Your task to perform on an android device: Go to Reddit.com Image 0: 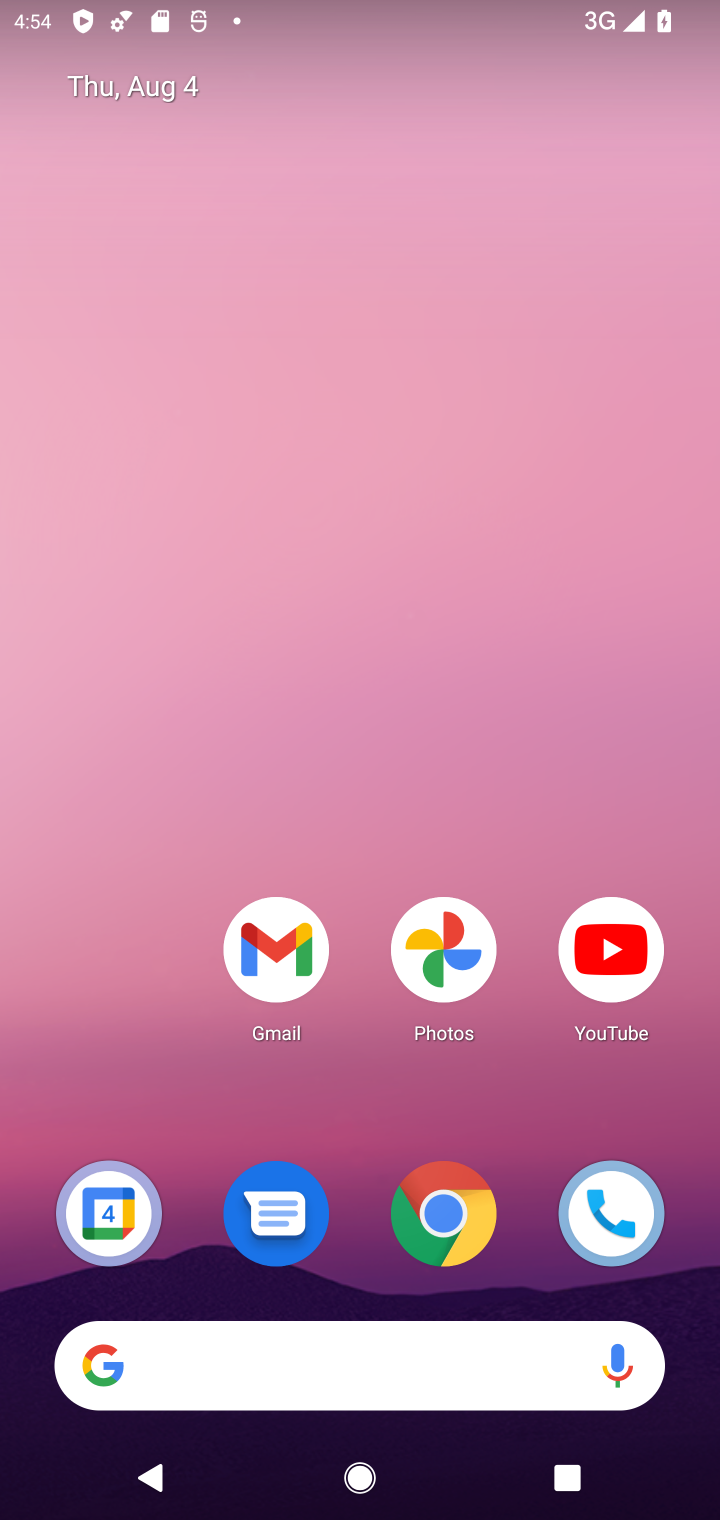
Step 0: press home button
Your task to perform on an android device: Go to Reddit.com Image 1: 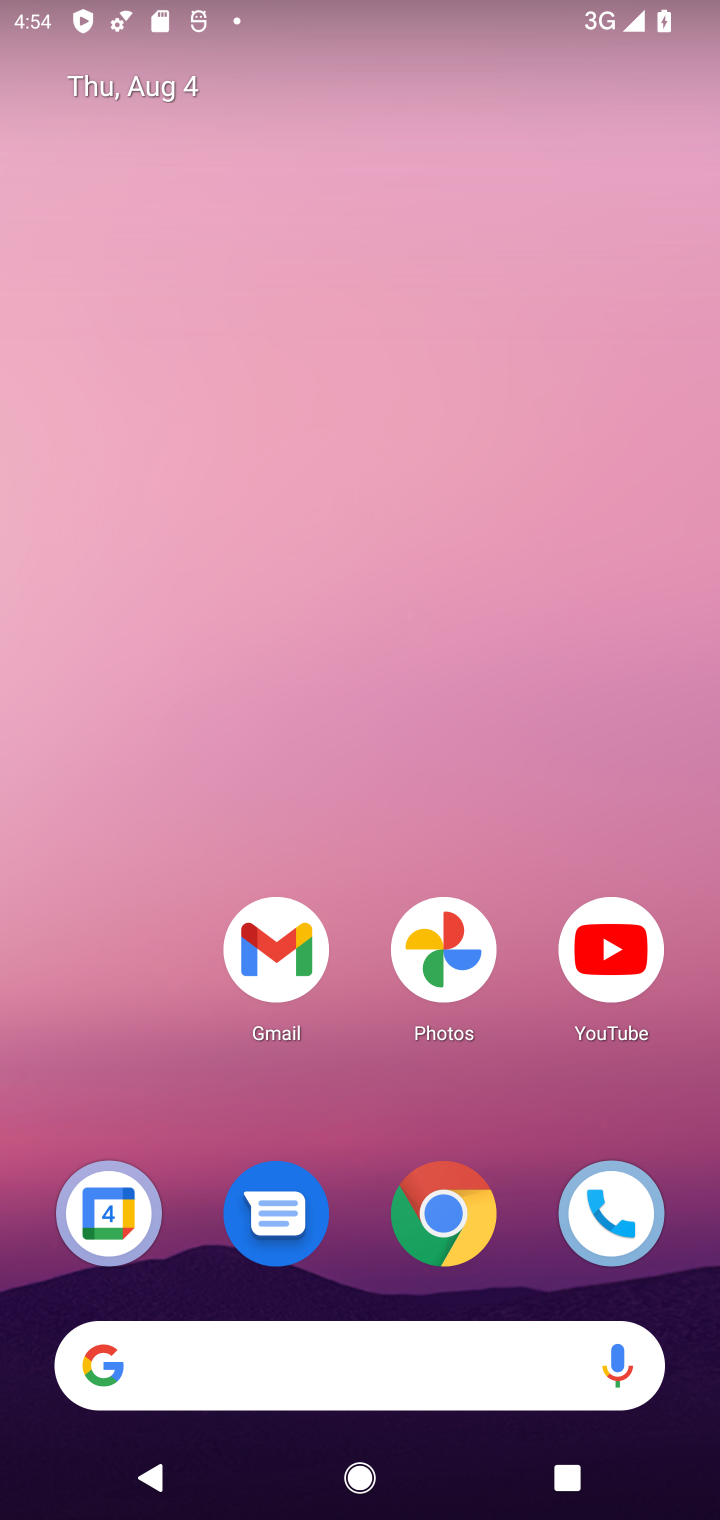
Step 1: drag from (144, 1039) to (170, 502)
Your task to perform on an android device: Go to Reddit.com Image 2: 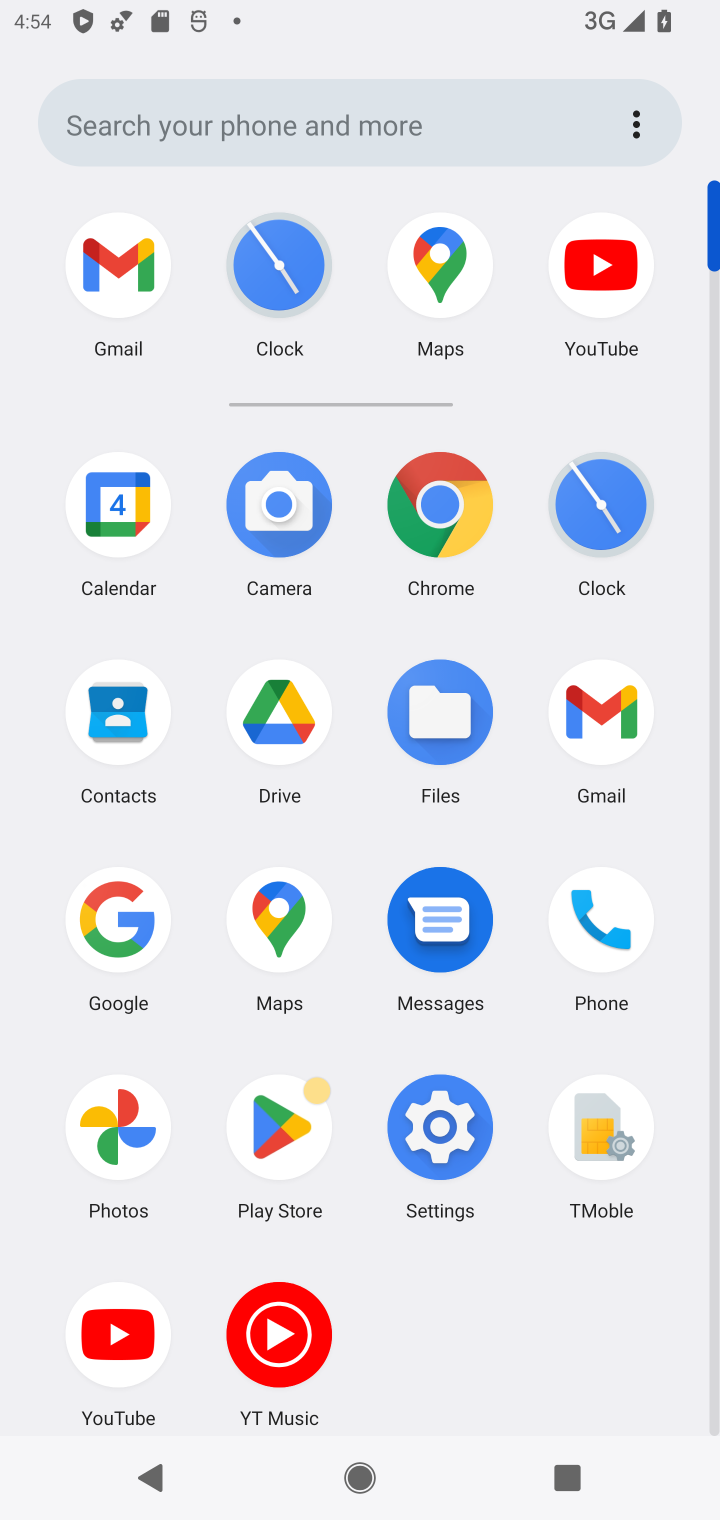
Step 2: click (451, 491)
Your task to perform on an android device: Go to Reddit.com Image 3: 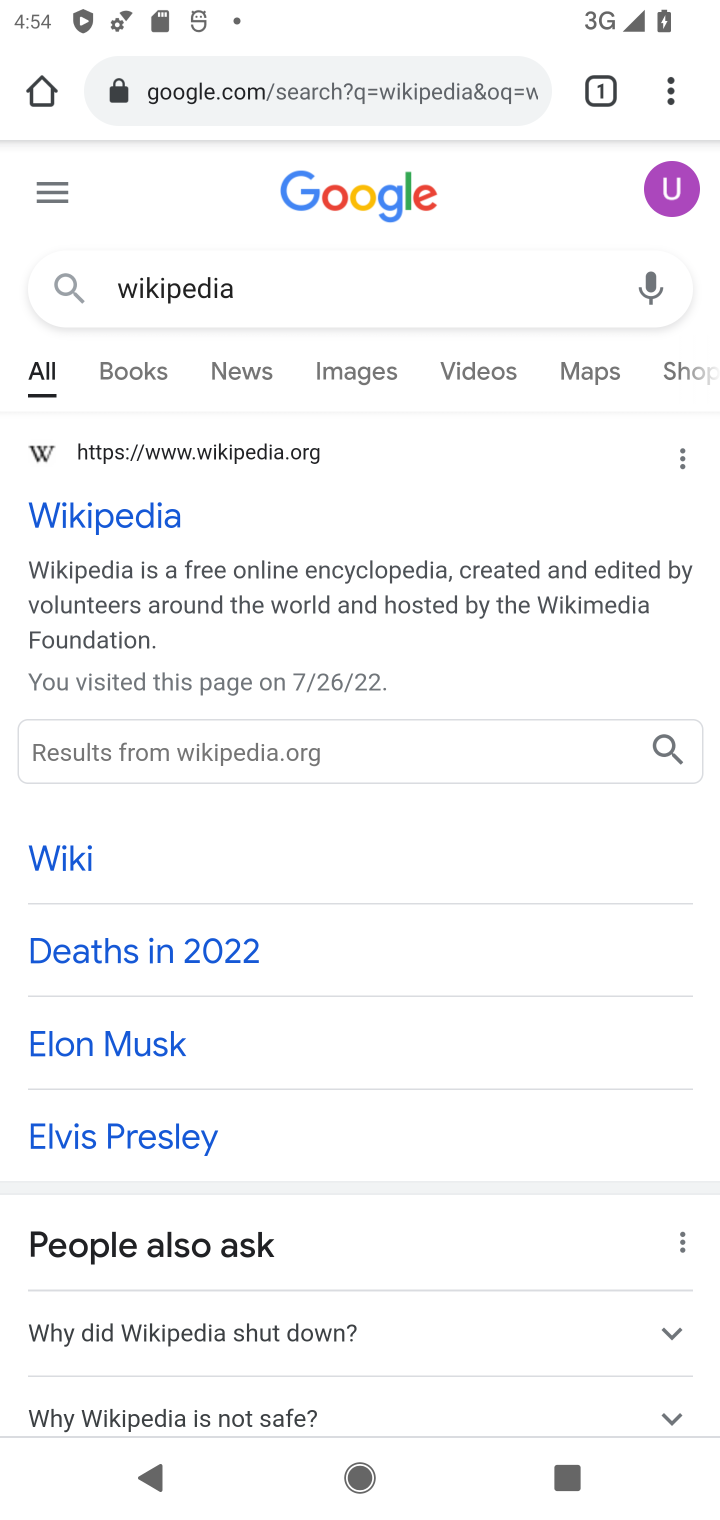
Step 3: click (401, 86)
Your task to perform on an android device: Go to Reddit.com Image 4: 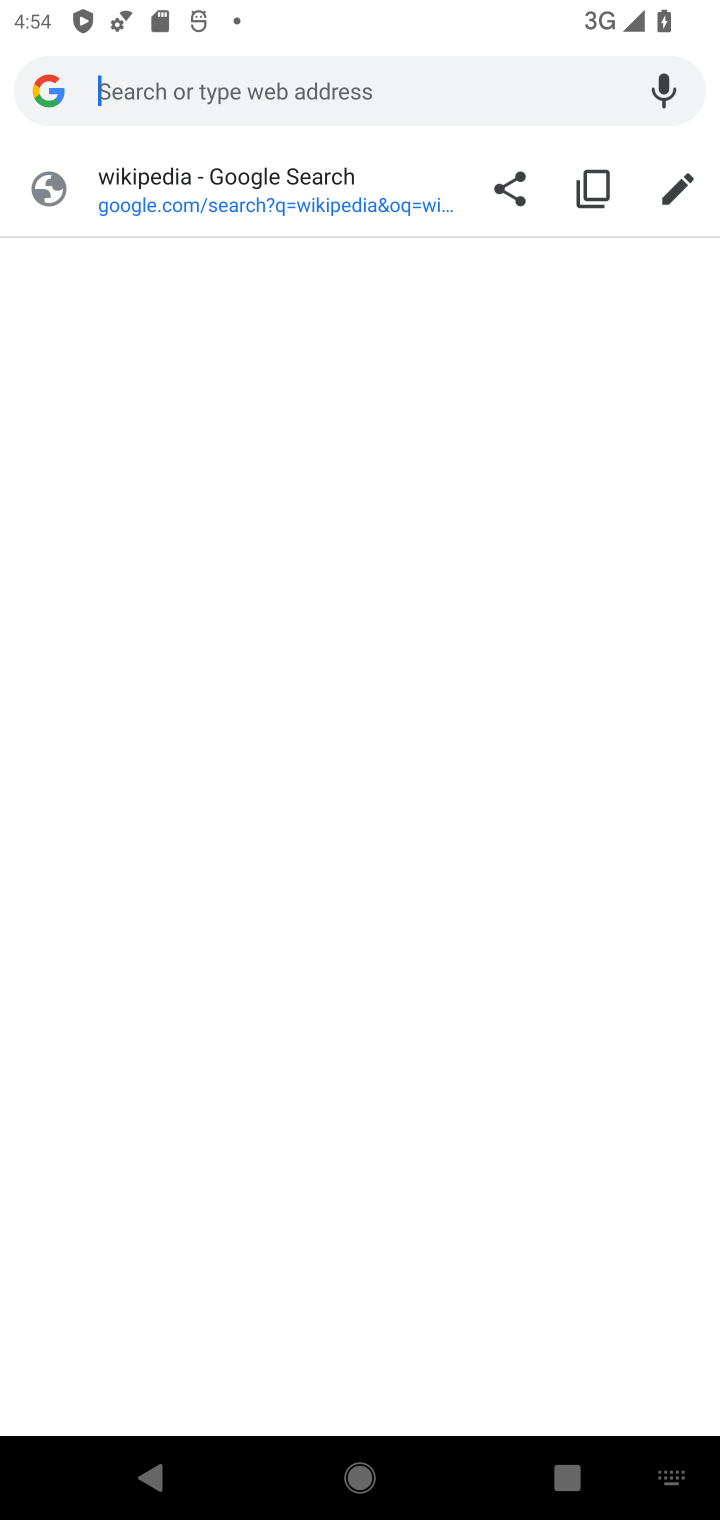
Step 4: type "reddit.com"
Your task to perform on an android device: Go to Reddit.com Image 5: 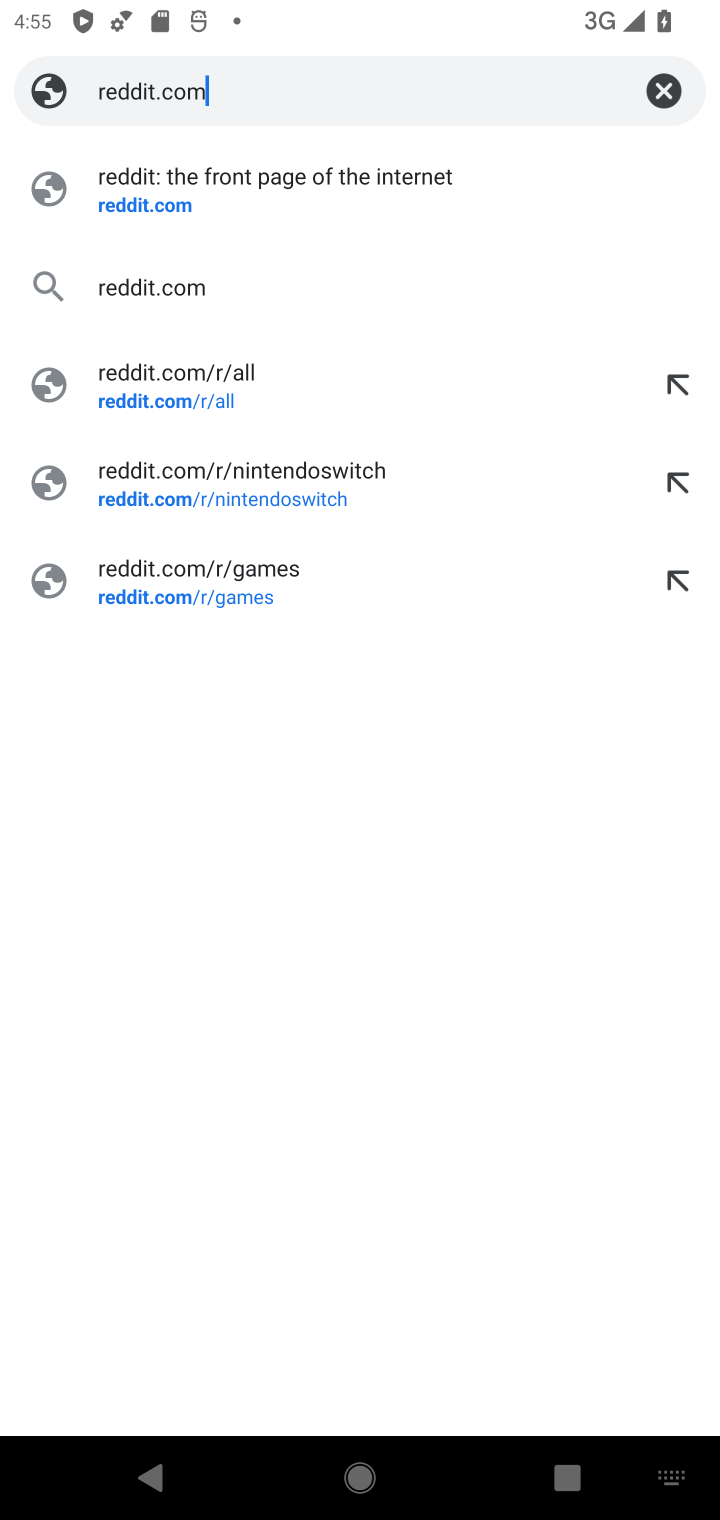
Step 5: click (199, 292)
Your task to perform on an android device: Go to Reddit.com Image 6: 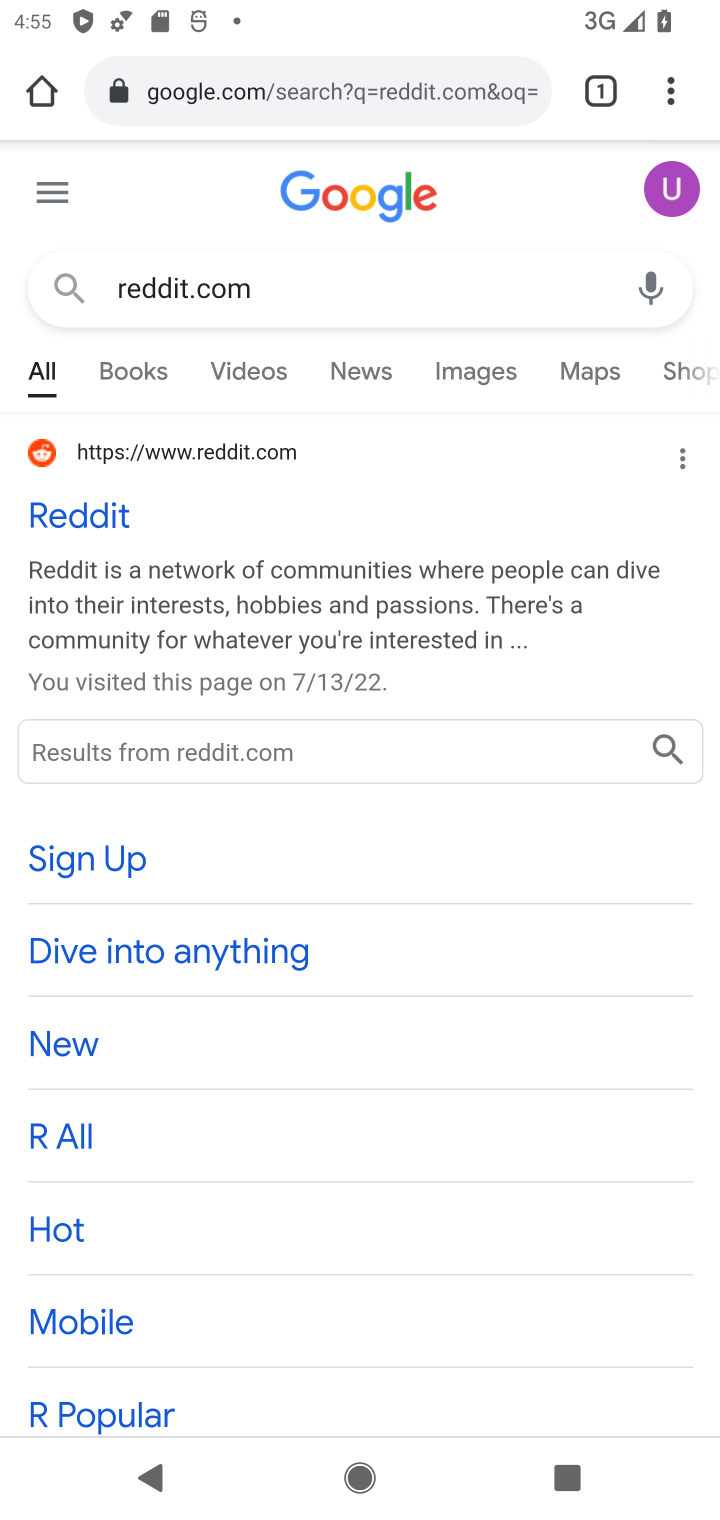
Step 6: task complete